Your task to perform on an android device: turn notification dots off Image 0: 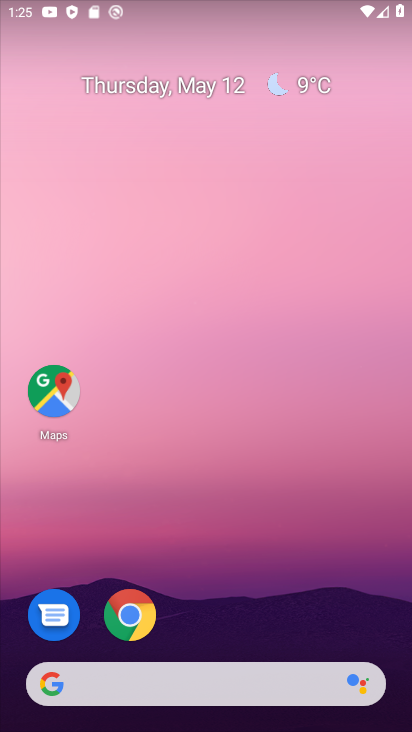
Step 0: drag from (194, 664) to (179, 298)
Your task to perform on an android device: turn notification dots off Image 1: 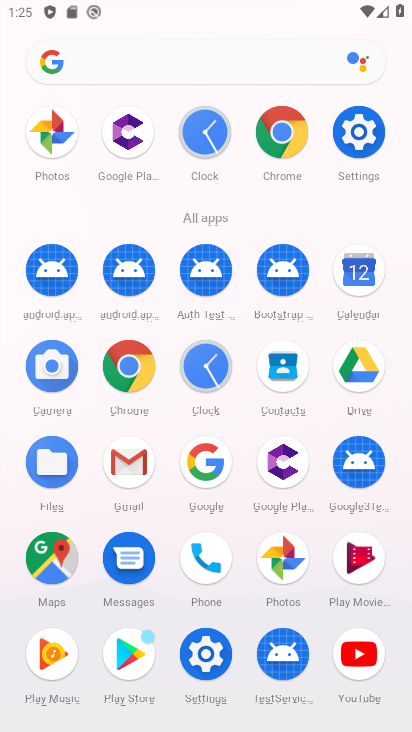
Step 1: click (364, 133)
Your task to perform on an android device: turn notification dots off Image 2: 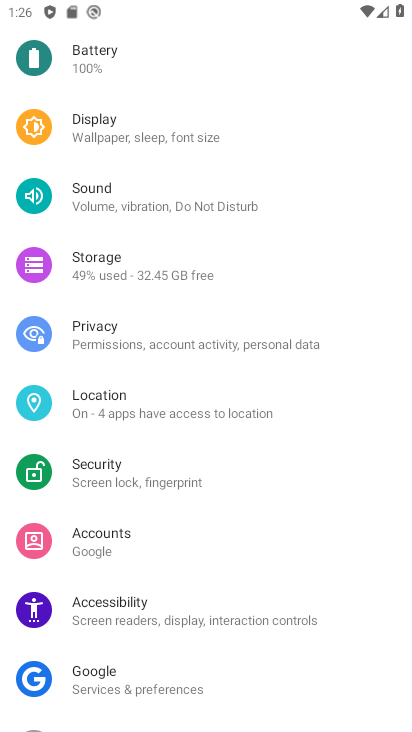
Step 2: drag from (206, 141) to (138, 386)
Your task to perform on an android device: turn notification dots off Image 3: 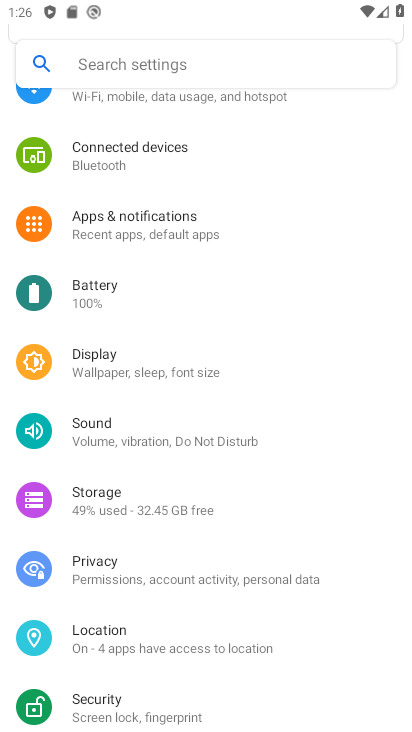
Step 3: click (164, 225)
Your task to perform on an android device: turn notification dots off Image 4: 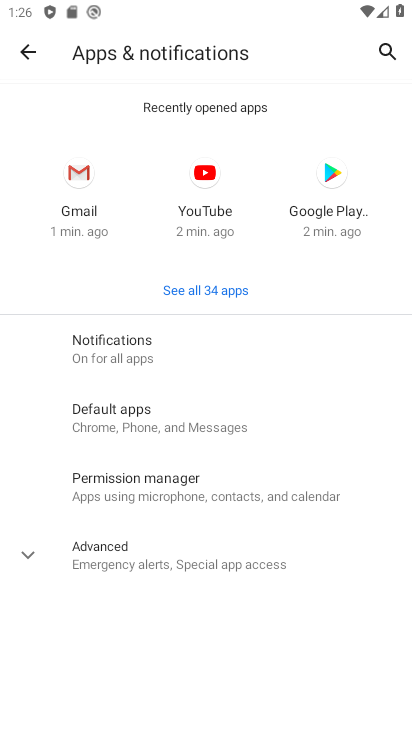
Step 4: click (182, 343)
Your task to perform on an android device: turn notification dots off Image 5: 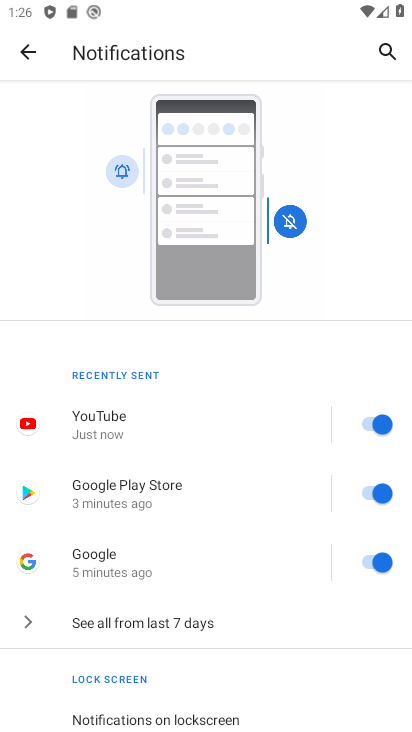
Step 5: drag from (86, 490) to (112, 162)
Your task to perform on an android device: turn notification dots off Image 6: 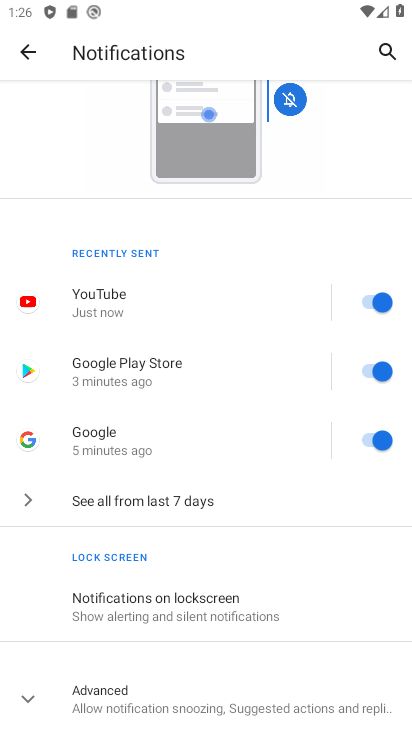
Step 6: click (139, 697)
Your task to perform on an android device: turn notification dots off Image 7: 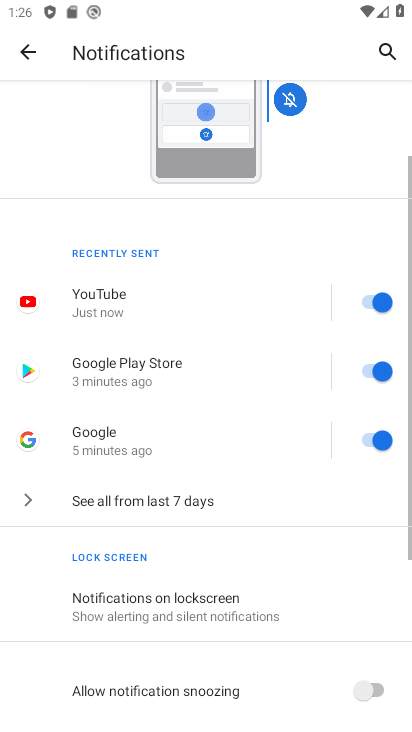
Step 7: drag from (164, 659) to (205, 394)
Your task to perform on an android device: turn notification dots off Image 8: 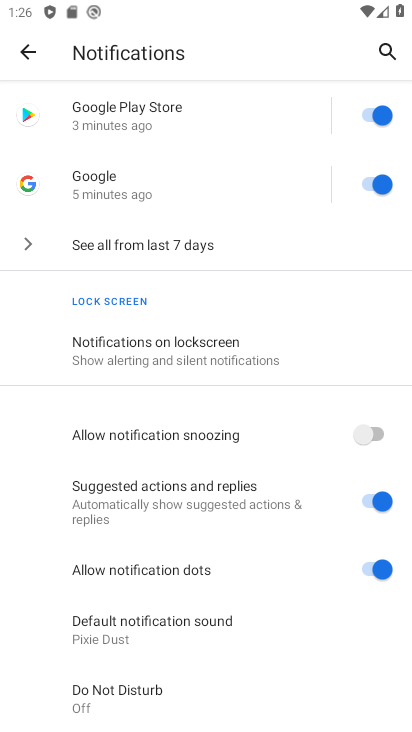
Step 8: click (374, 563)
Your task to perform on an android device: turn notification dots off Image 9: 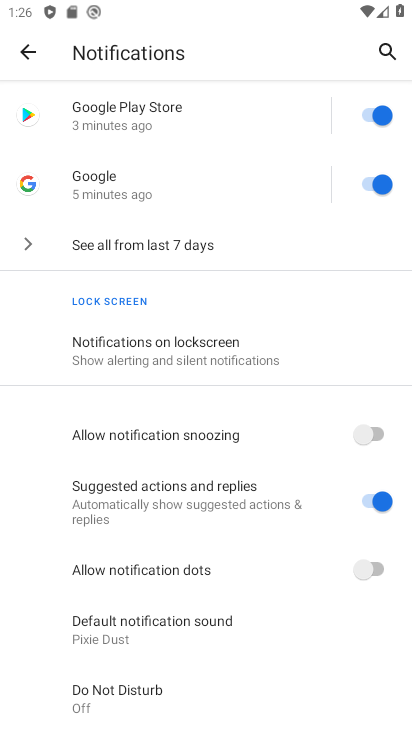
Step 9: task complete